Your task to perform on an android device: Open the stopwatch Image 0: 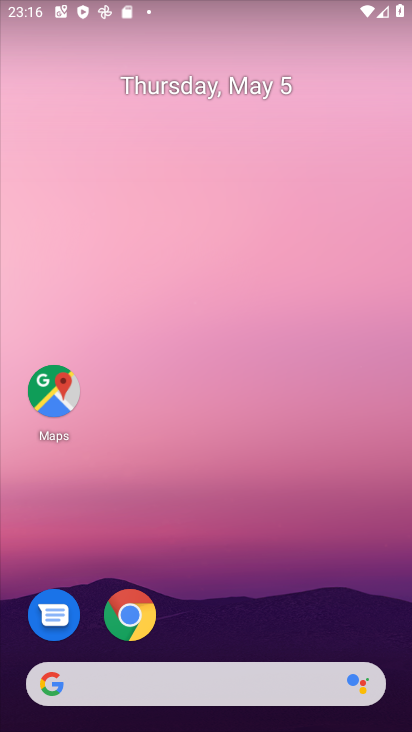
Step 0: drag from (281, 605) to (347, 99)
Your task to perform on an android device: Open the stopwatch Image 1: 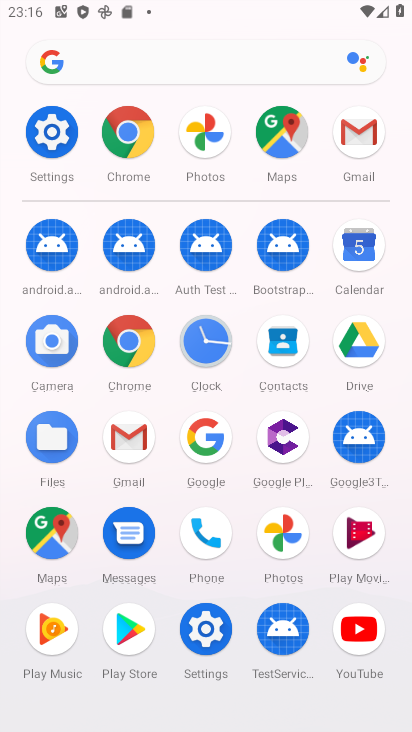
Step 1: click (217, 340)
Your task to perform on an android device: Open the stopwatch Image 2: 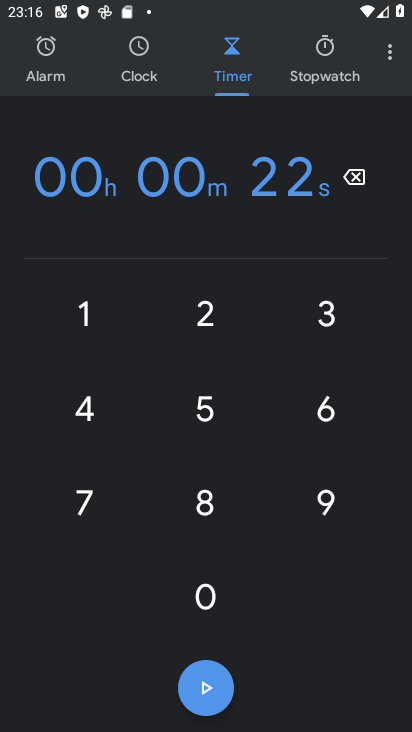
Step 2: click (324, 57)
Your task to perform on an android device: Open the stopwatch Image 3: 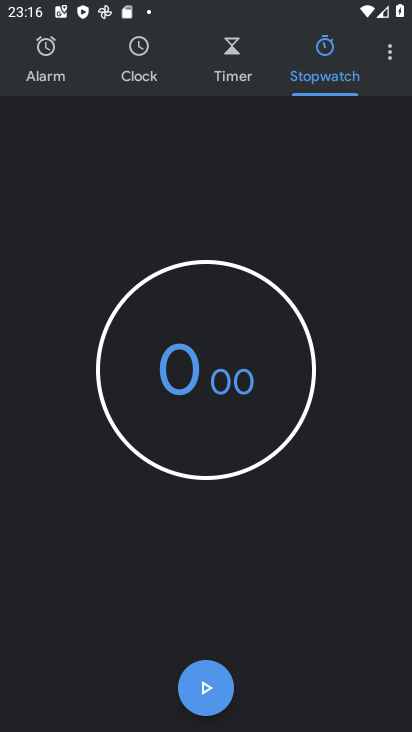
Step 3: click (210, 686)
Your task to perform on an android device: Open the stopwatch Image 4: 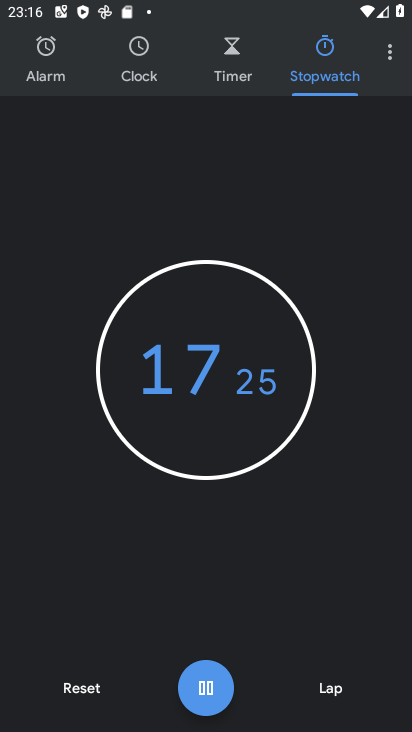
Step 4: task complete